Your task to perform on an android device: open the mobile data screen to see how much data has been used Image 0: 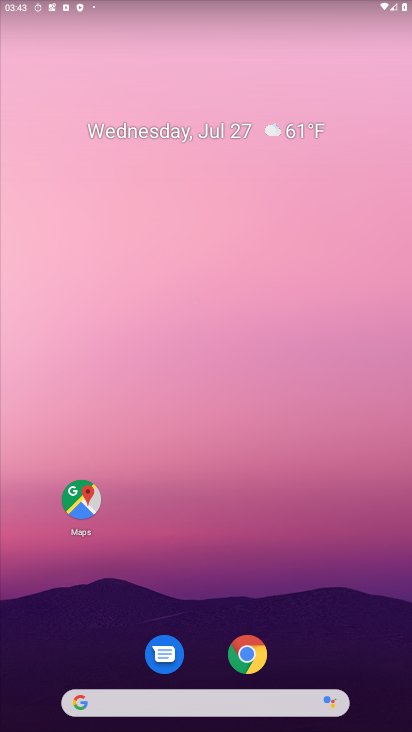
Step 0: drag from (212, 678) to (349, 6)
Your task to perform on an android device: open the mobile data screen to see how much data has been used Image 1: 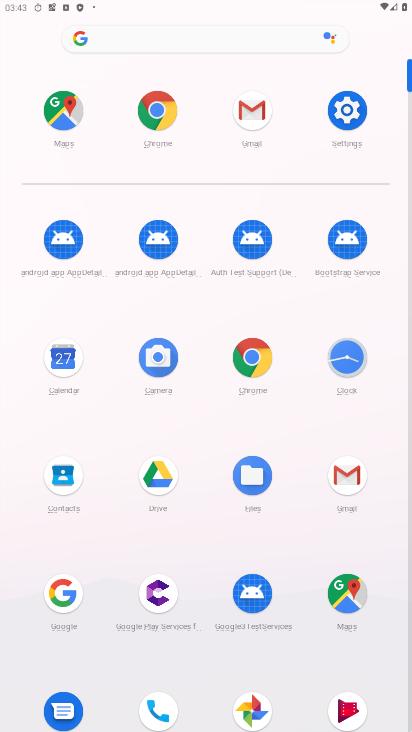
Step 1: click (371, 114)
Your task to perform on an android device: open the mobile data screen to see how much data has been used Image 2: 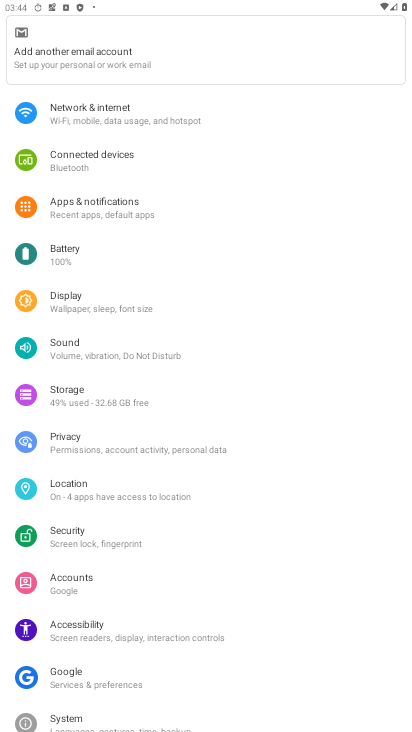
Step 2: click (175, 121)
Your task to perform on an android device: open the mobile data screen to see how much data has been used Image 3: 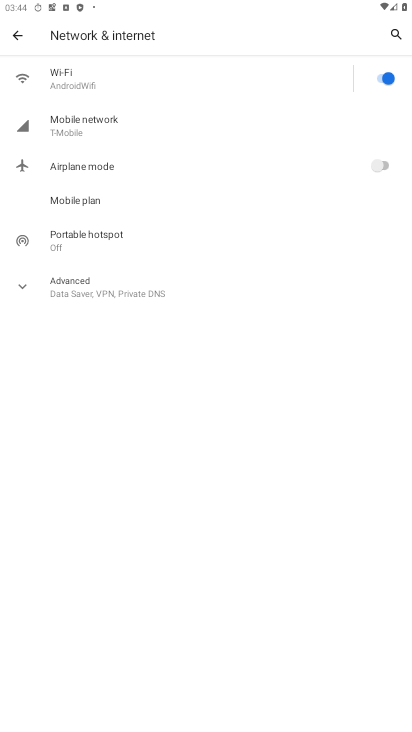
Step 3: click (90, 122)
Your task to perform on an android device: open the mobile data screen to see how much data has been used Image 4: 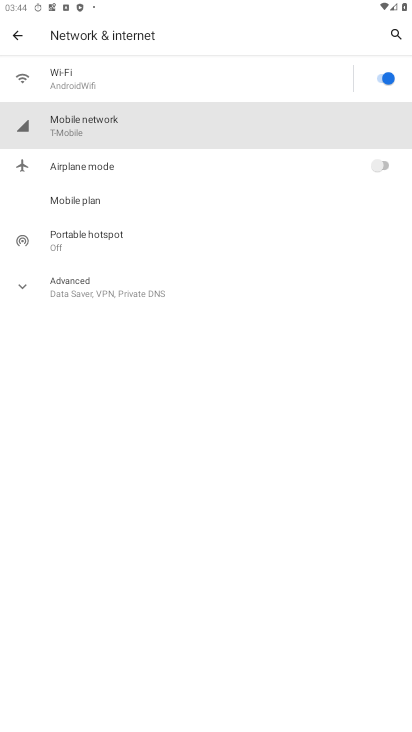
Step 4: task complete